Your task to perform on an android device: Search for "logitech g933" on costco.com, select the first entry, and add it to the cart. Image 0: 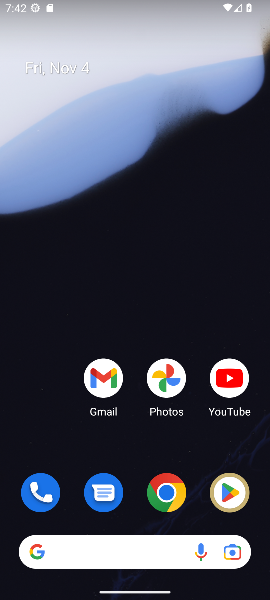
Step 0: drag from (128, 443) to (215, 0)
Your task to perform on an android device: Search for "logitech g933" on costco.com, select the first entry, and add it to the cart. Image 1: 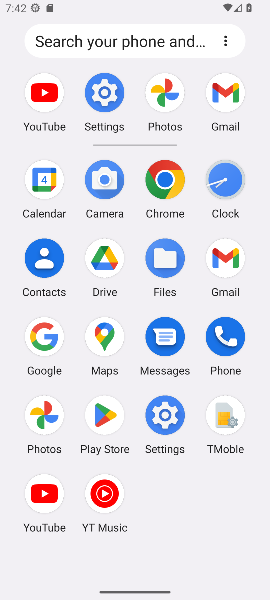
Step 1: click (167, 185)
Your task to perform on an android device: Search for "logitech g933" on costco.com, select the first entry, and add it to the cart. Image 2: 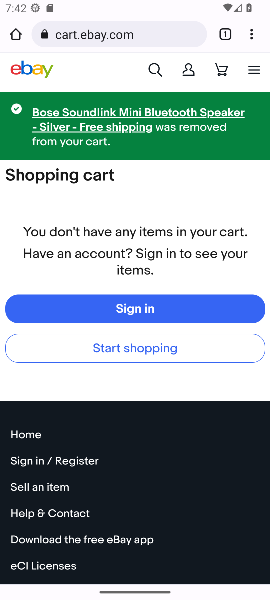
Step 2: click (109, 37)
Your task to perform on an android device: Search for "logitech g933" on costco.com, select the first entry, and add it to the cart. Image 3: 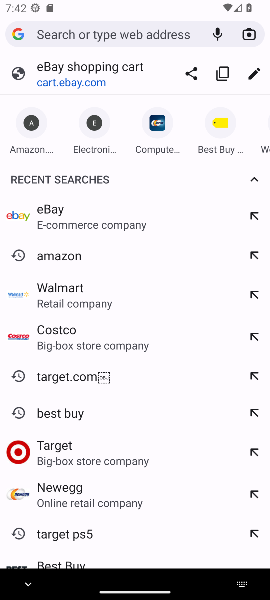
Step 3: type "costco.com"
Your task to perform on an android device: Search for "logitech g933" on costco.com, select the first entry, and add it to the cart. Image 4: 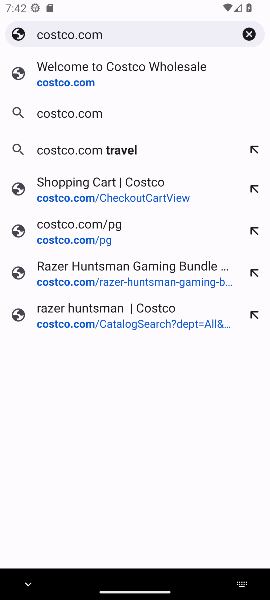
Step 4: press enter
Your task to perform on an android device: Search for "logitech g933" on costco.com, select the first entry, and add it to the cart. Image 5: 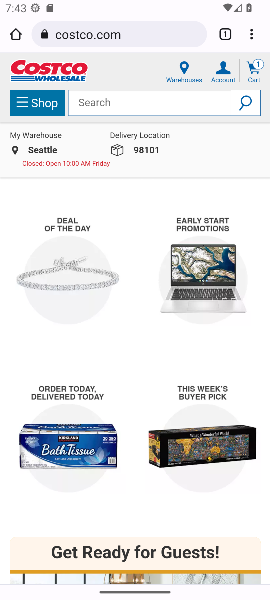
Step 5: click (213, 103)
Your task to perform on an android device: Search for "logitech g933" on costco.com, select the first entry, and add it to the cart. Image 6: 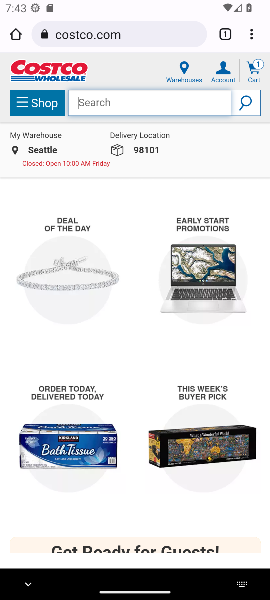
Step 6: type "logitech g933"
Your task to perform on an android device: Search for "logitech g933" on costco.com, select the first entry, and add it to the cart. Image 7: 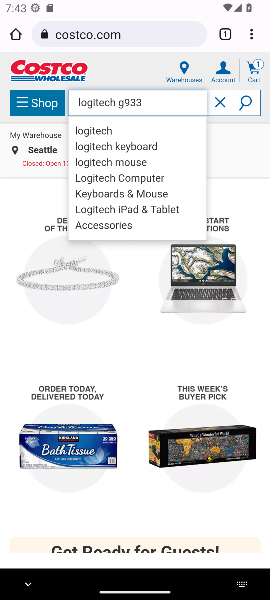
Step 7: press enter
Your task to perform on an android device: Search for "logitech g933" on costco.com, select the first entry, and add it to the cart. Image 8: 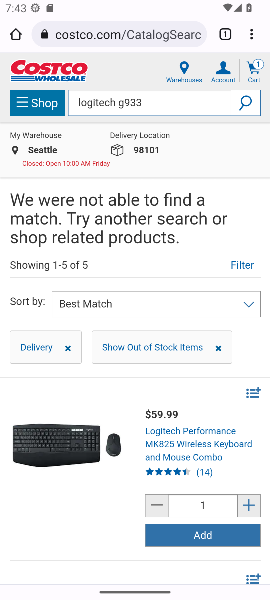
Step 8: task complete